Your task to perform on an android device: turn on sleep mode Image 0: 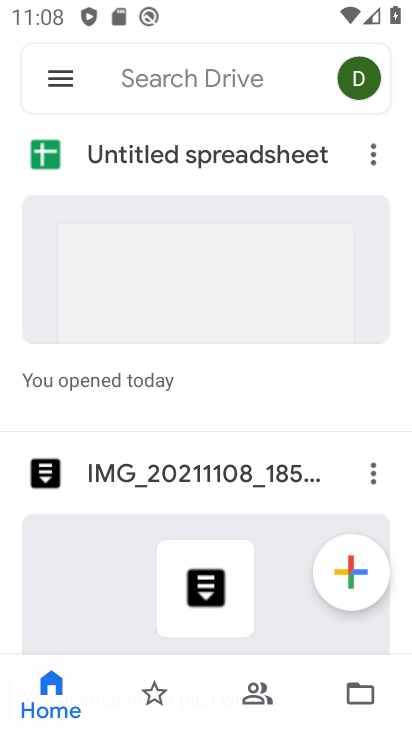
Step 0: press home button
Your task to perform on an android device: turn on sleep mode Image 1: 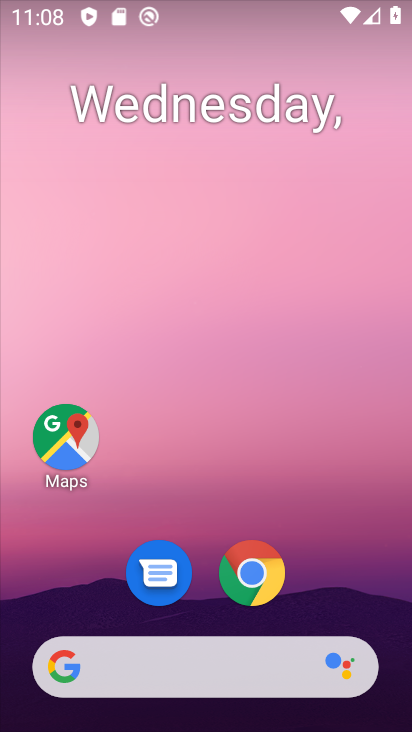
Step 1: drag from (356, 597) to (358, 131)
Your task to perform on an android device: turn on sleep mode Image 2: 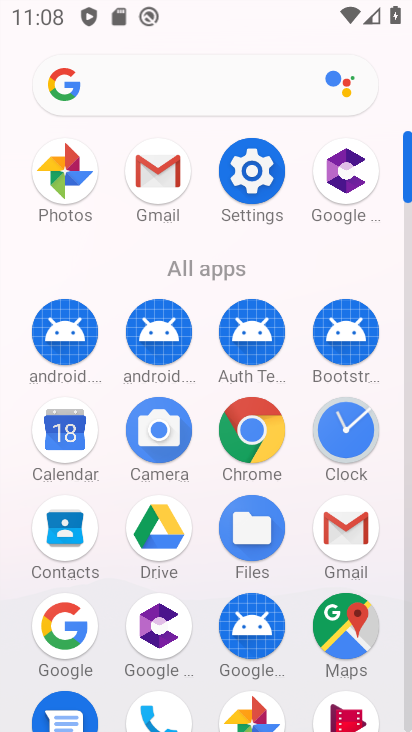
Step 2: click (248, 198)
Your task to perform on an android device: turn on sleep mode Image 3: 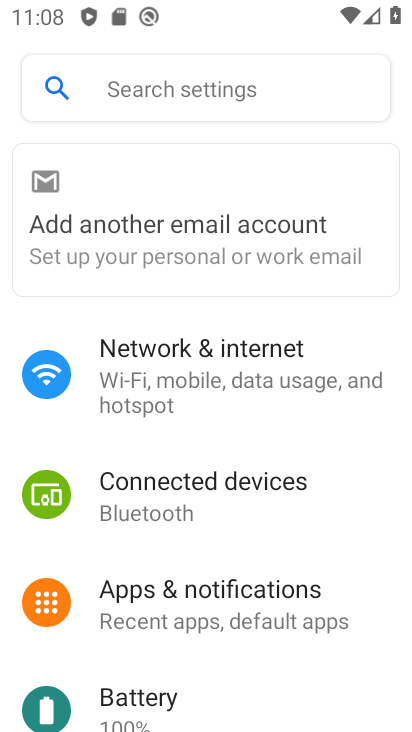
Step 3: drag from (350, 589) to (347, 381)
Your task to perform on an android device: turn on sleep mode Image 4: 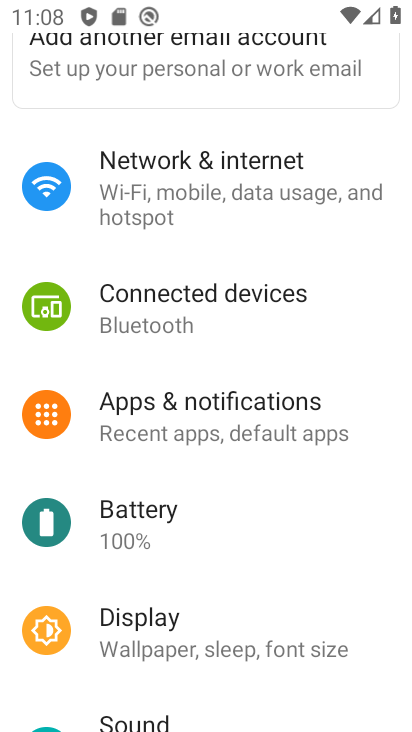
Step 4: drag from (339, 595) to (343, 363)
Your task to perform on an android device: turn on sleep mode Image 5: 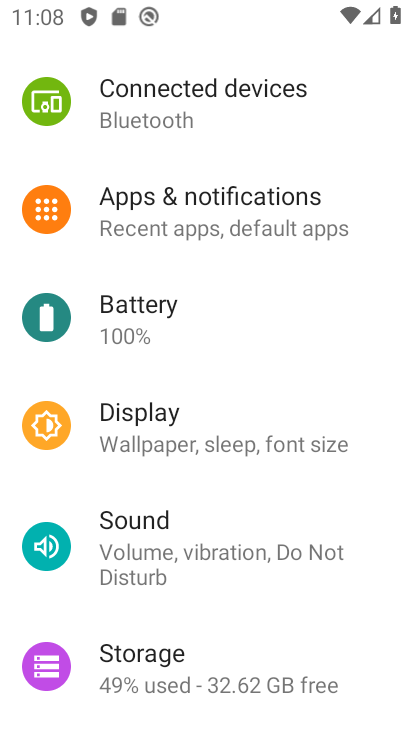
Step 5: drag from (362, 628) to (363, 464)
Your task to perform on an android device: turn on sleep mode Image 6: 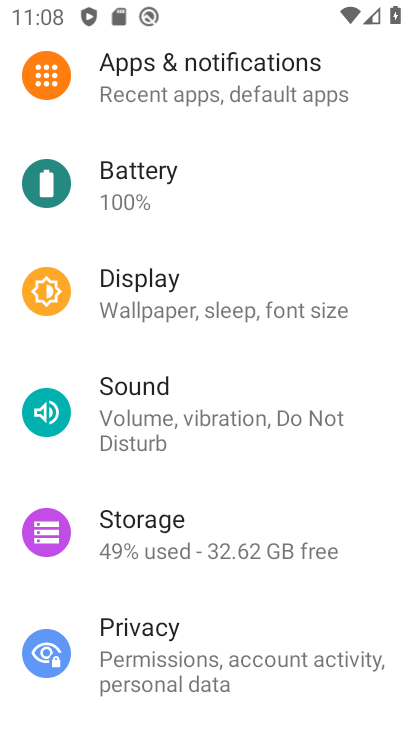
Step 6: click (274, 293)
Your task to perform on an android device: turn on sleep mode Image 7: 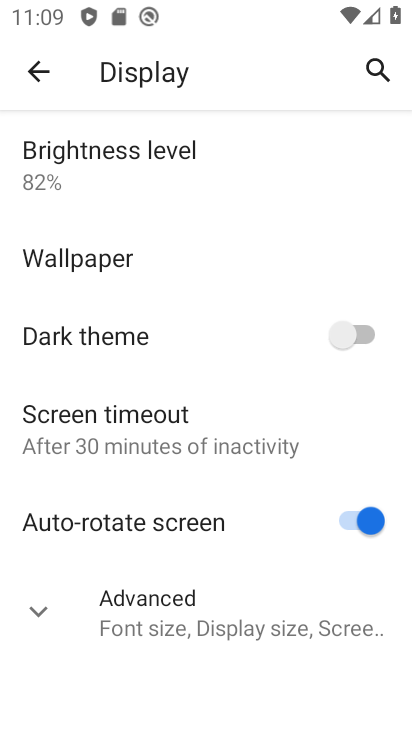
Step 7: click (280, 633)
Your task to perform on an android device: turn on sleep mode Image 8: 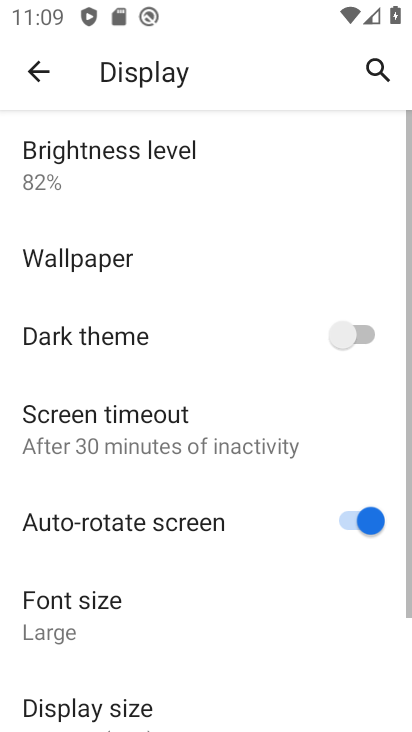
Step 8: task complete